Your task to perform on an android device: turn on sleep mode Image 0: 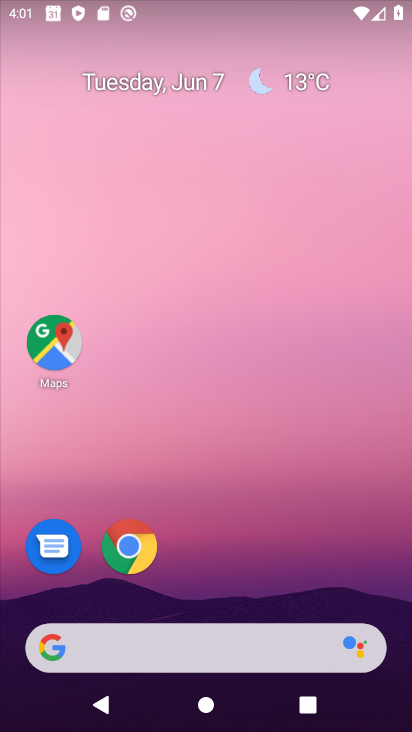
Step 0: drag from (233, 610) to (251, 198)
Your task to perform on an android device: turn on sleep mode Image 1: 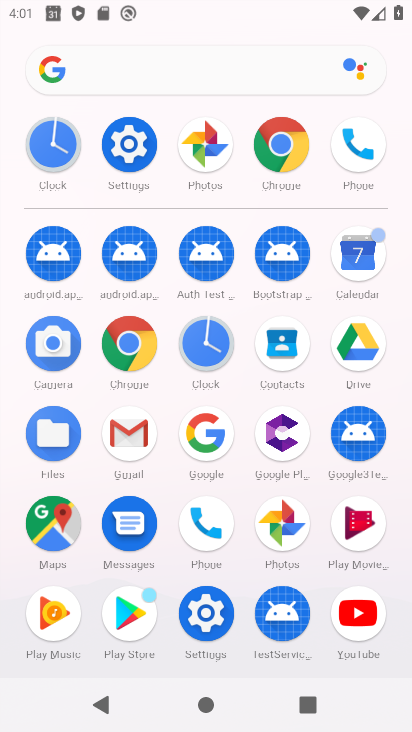
Step 1: click (133, 159)
Your task to perform on an android device: turn on sleep mode Image 2: 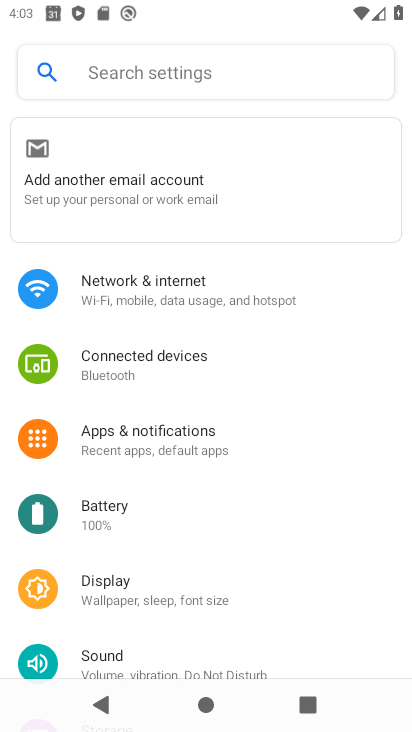
Step 2: task complete